Your task to perform on an android device: empty trash in google photos Image 0: 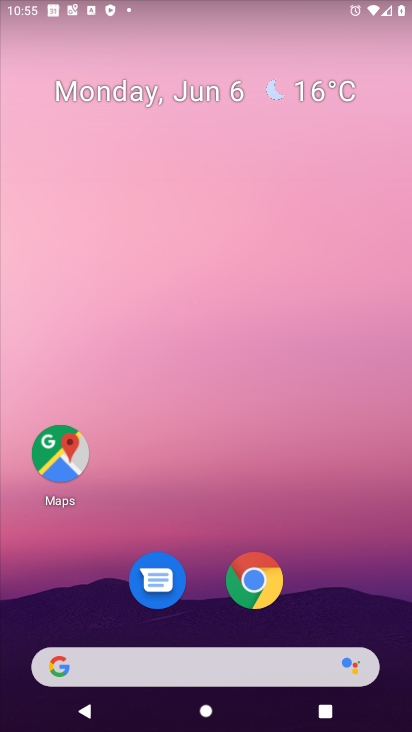
Step 0: drag from (354, 581) to (353, 132)
Your task to perform on an android device: empty trash in google photos Image 1: 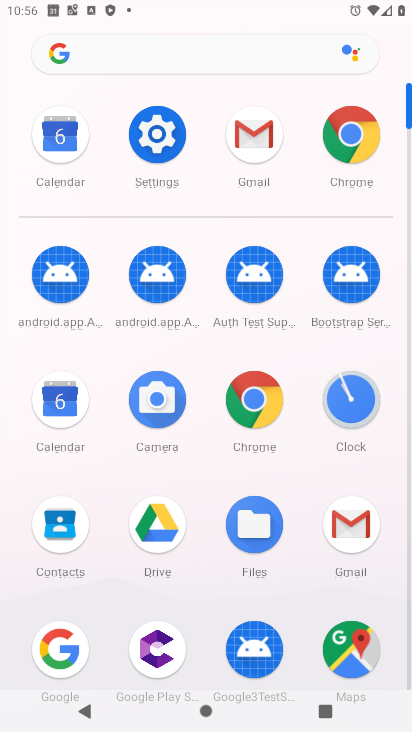
Step 1: drag from (391, 571) to (321, 210)
Your task to perform on an android device: empty trash in google photos Image 2: 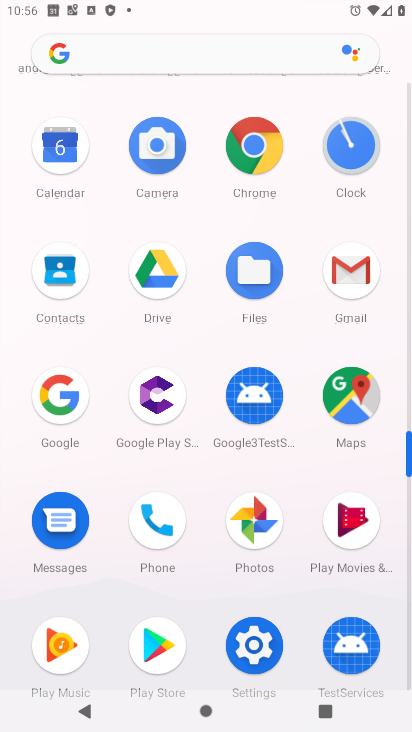
Step 2: click (252, 510)
Your task to perform on an android device: empty trash in google photos Image 3: 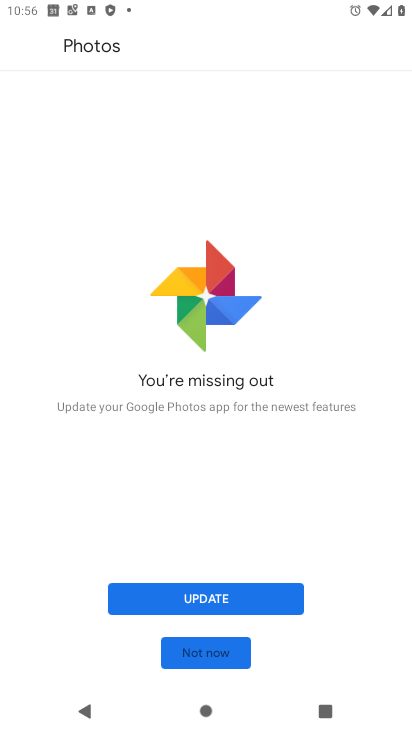
Step 3: click (223, 595)
Your task to perform on an android device: empty trash in google photos Image 4: 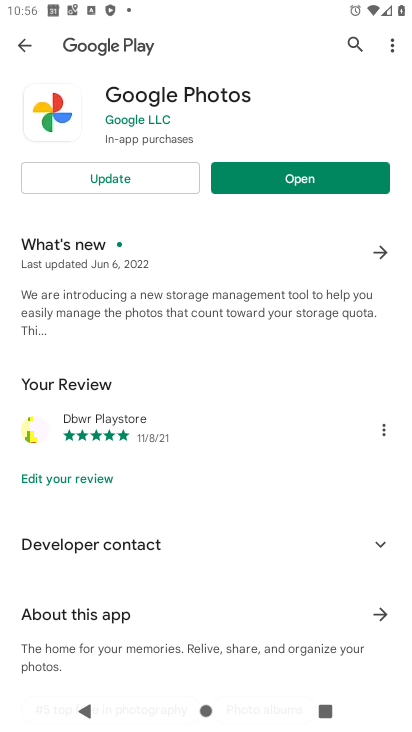
Step 4: click (289, 190)
Your task to perform on an android device: empty trash in google photos Image 5: 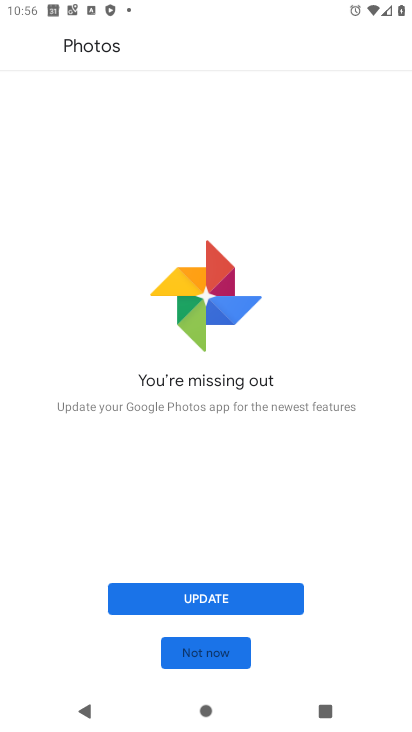
Step 5: click (210, 662)
Your task to perform on an android device: empty trash in google photos Image 6: 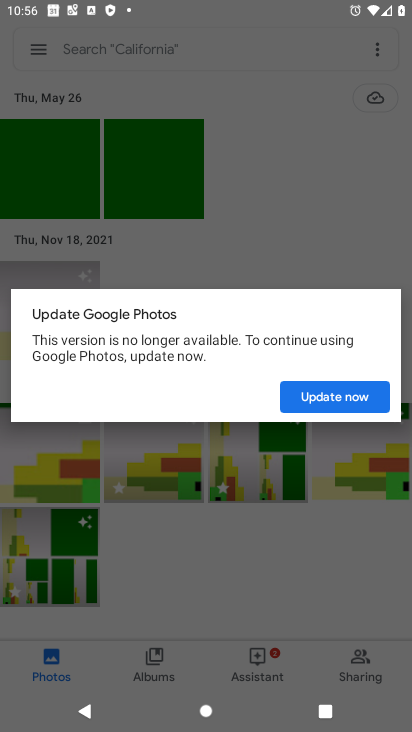
Step 6: click (343, 390)
Your task to perform on an android device: empty trash in google photos Image 7: 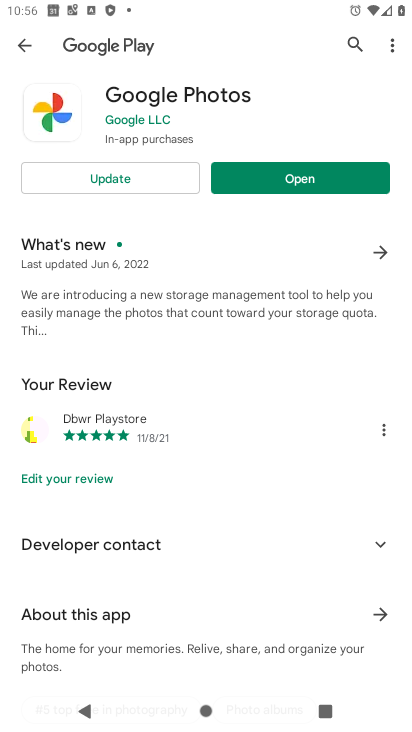
Step 7: click (111, 171)
Your task to perform on an android device: empty trash in google photos Image 8: 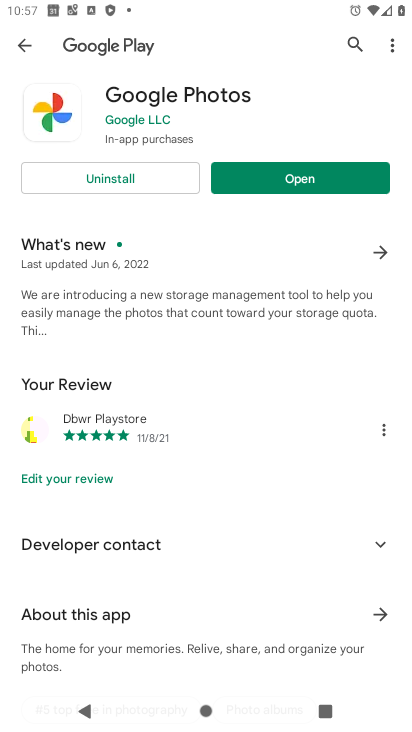
Step 8: click (299, 178)
Your task to perform on an android device: empty trash in google photos Image 9: 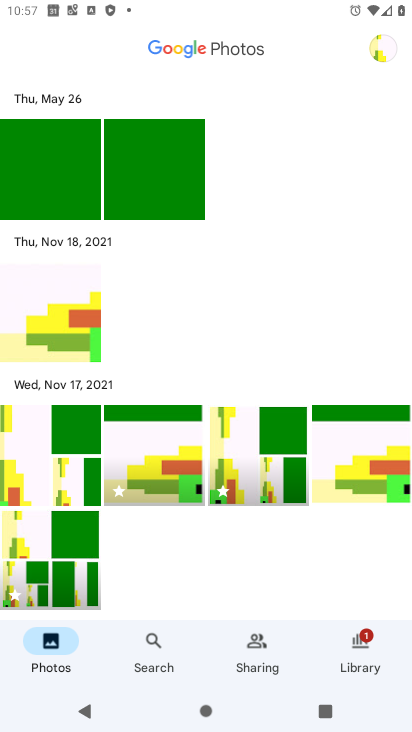
Step 9: click (381, 63)
Your task to perform on an android device: empty trash in google photos Image 10: 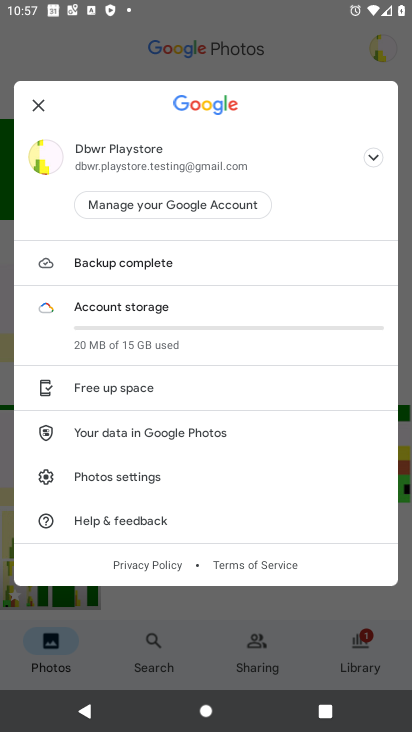
Step 10: task complete